Your task to perform on an android device: open sync settings in chrome Image 0: 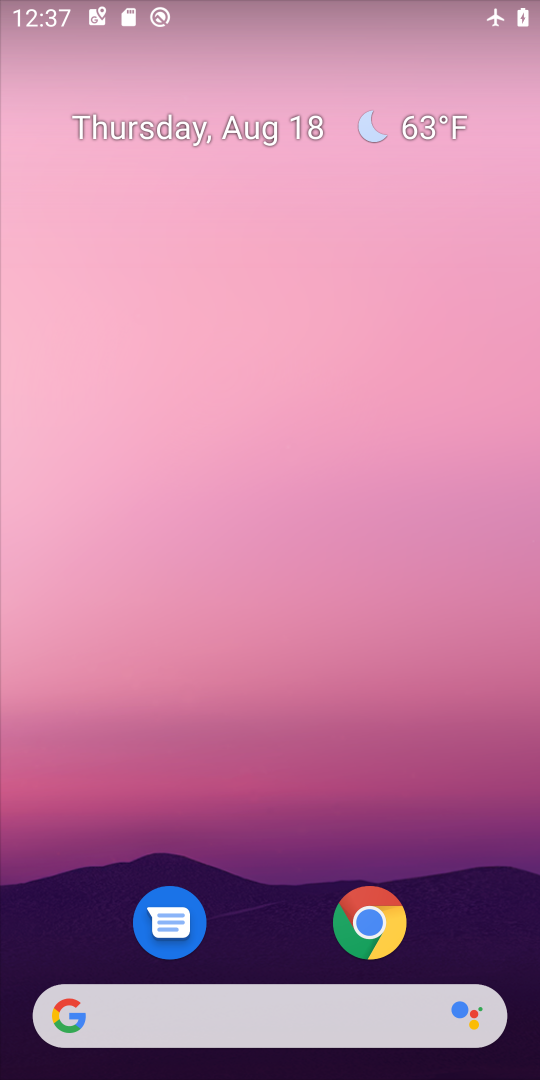
Step 0: click (377, 927)
Your task to perform on an android device: open sync settings in chrome Image 1: 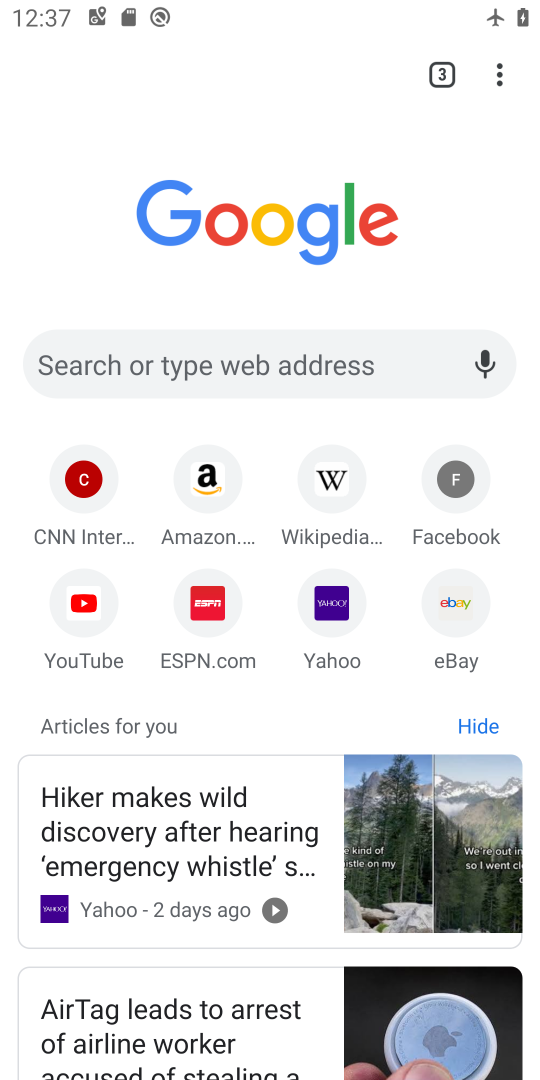
Step 1: click (503, 70)
Your task to perform on an android device: open sync settings in chrome Image 2: 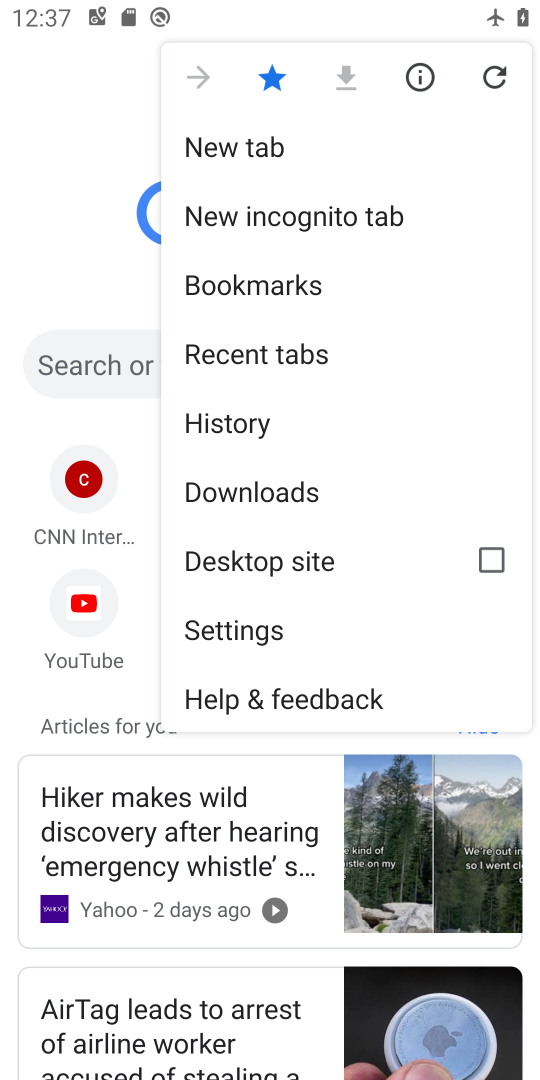
Step 2: click (261, 625)
Your task to perform on an android device: open sync settings in chrome Image 3: 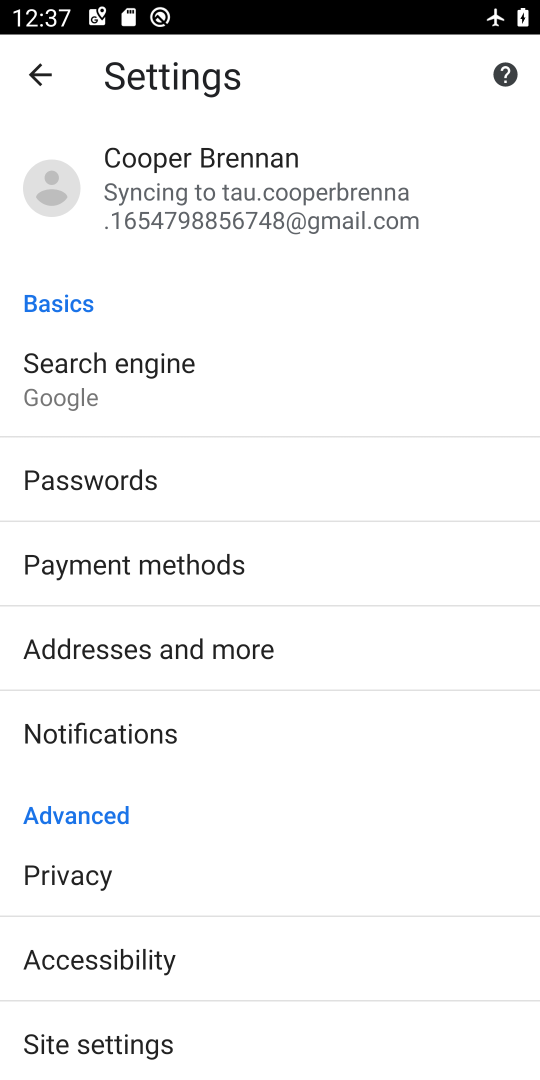
Step 3: click (177, 170)
Your task to perform on an android device: open sync settings in chrome Image 4: 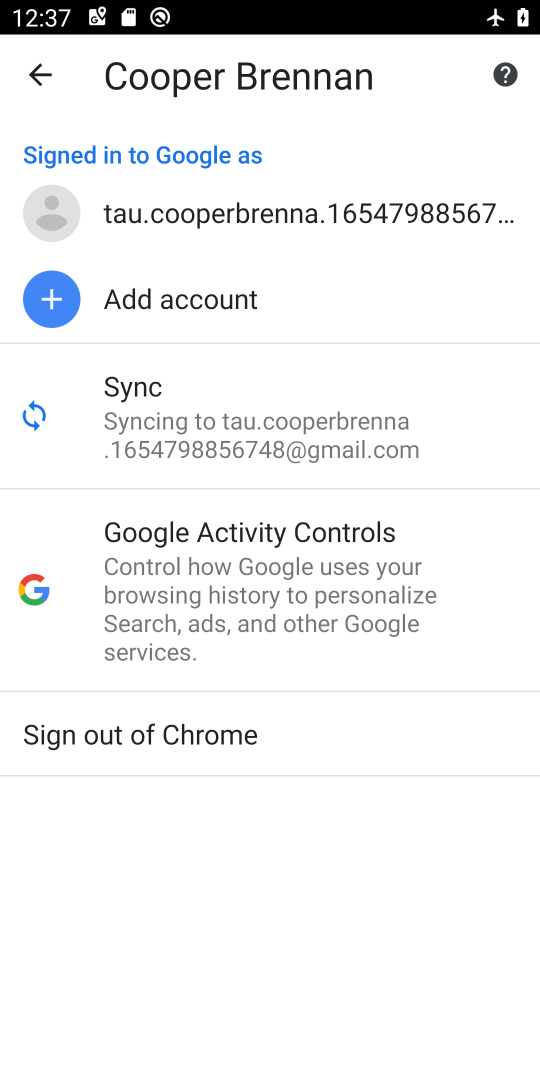
Step 4: click (128, 393)
Your task to perform on an android device: open sync settings in chrome Image 5: 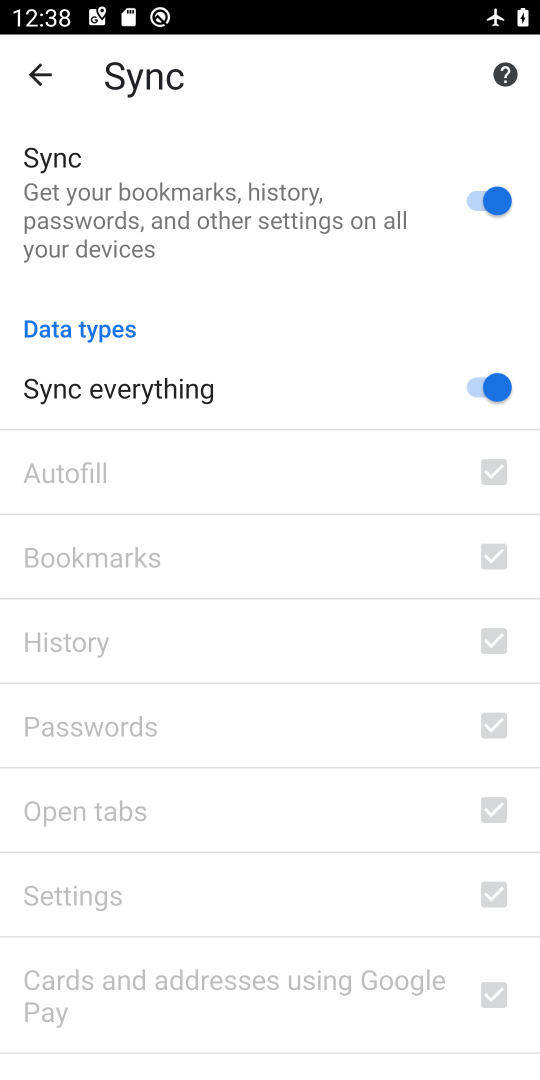
Step 5: task complete